Your task to perform on an android device: turn off location Image 0: 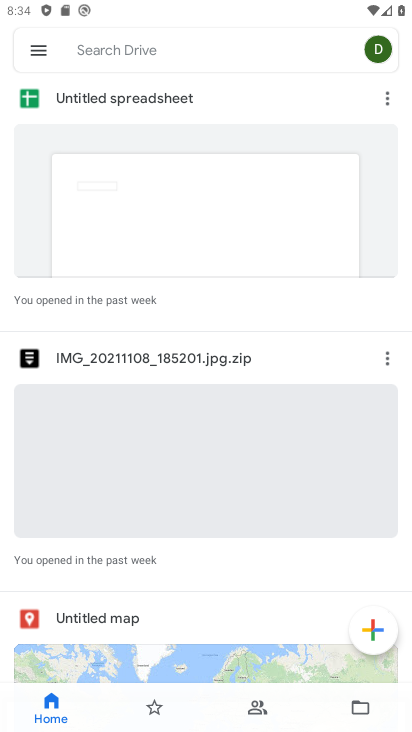
Step 0: drag from (265, 615) to (387, 313)
Your task to perform on an android device: turn off location Image 1: 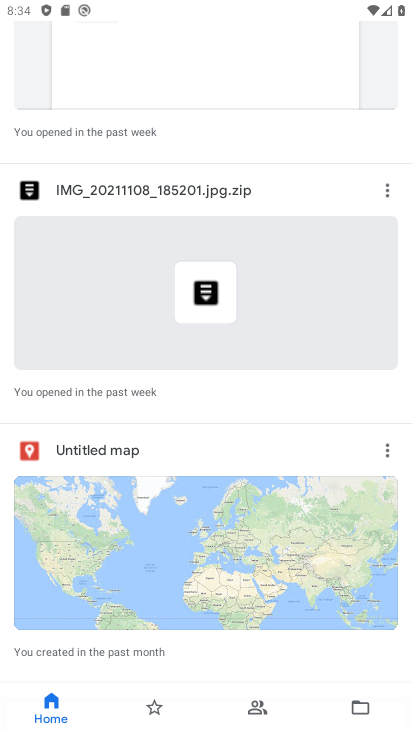
Step 1: press home button
Your task to perform on an android device: turn off location Image 2: 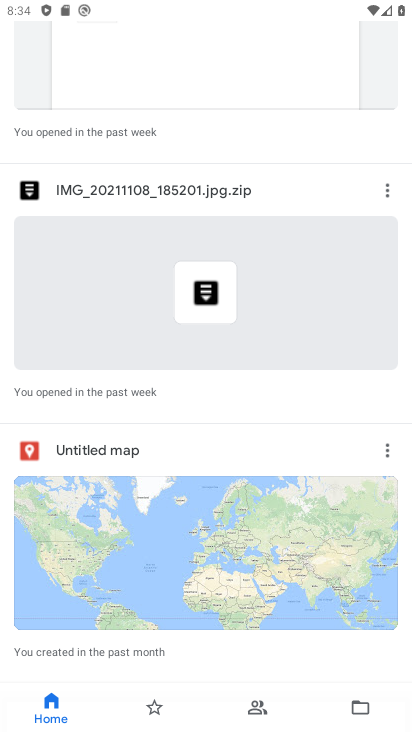
Step 2: drag from (387, 313) to (403, 280)
Your task to perform on an android device: turn off location Image 3: 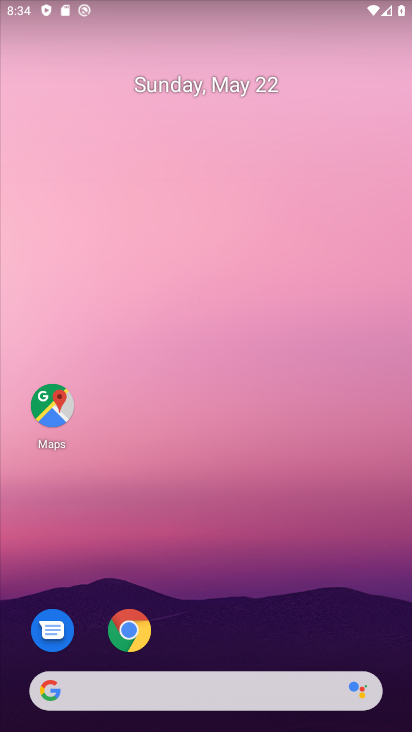
Step 3: drag from (255, 614) to (330, 69)
Your task to perform on an android device: turn off location Image 4: 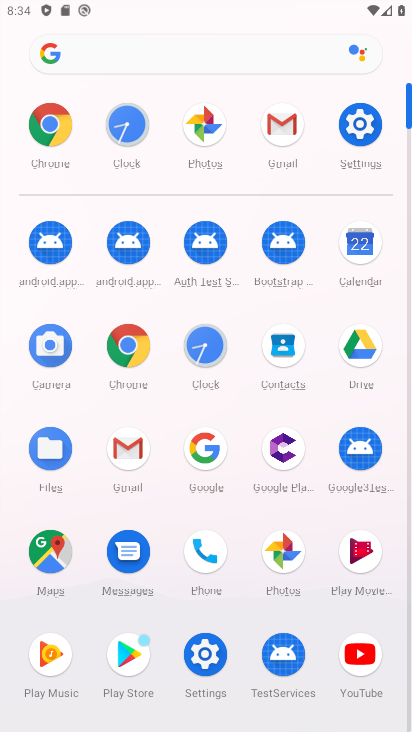
Step 4: click (377, 124)
Your task to perform on an android device: turn off location Image 5: 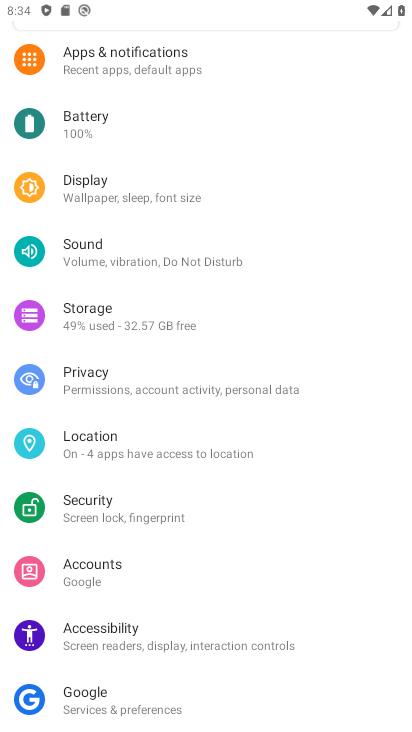
Step 5: click (202, 94)
Your task to perform on an android device: turn off location Image 6: 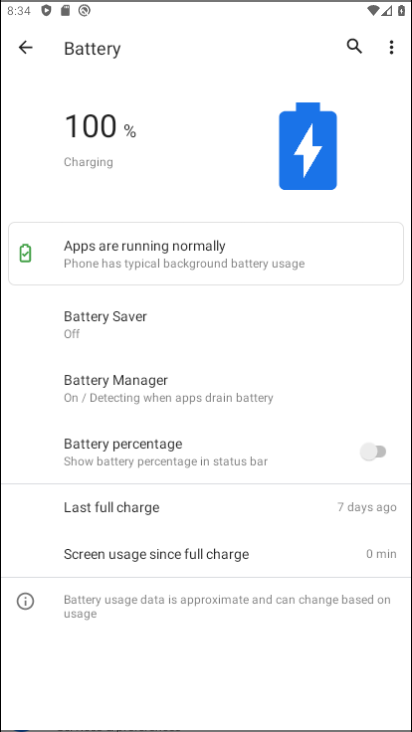
Step 6: task complete